Your task to perform on an android device: delete browsing data in the chrome app Image 0: 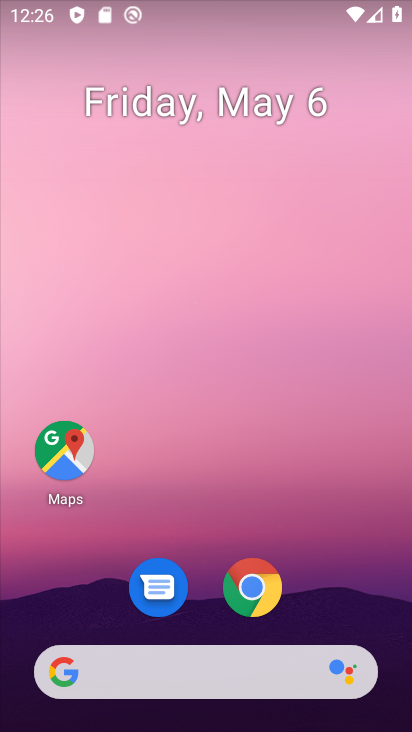
Step 0: click (252, 592)
Your task to perform on an android device: delete browsing data in the chrome app Image 1: 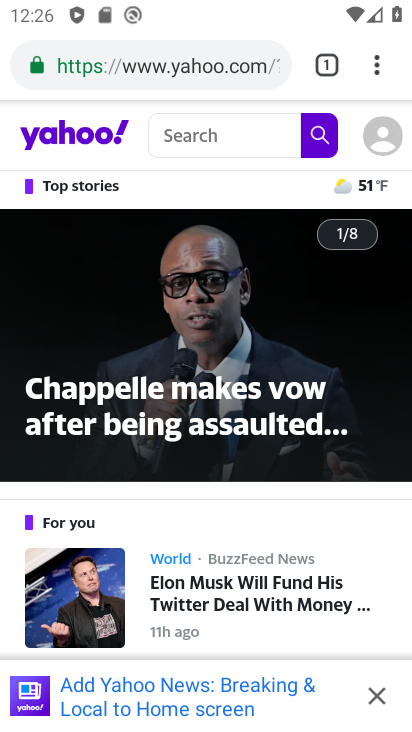
Step 1: click (377, 63)
Your task to perform on an android device: delete browsing data in the chrome app Image 2: 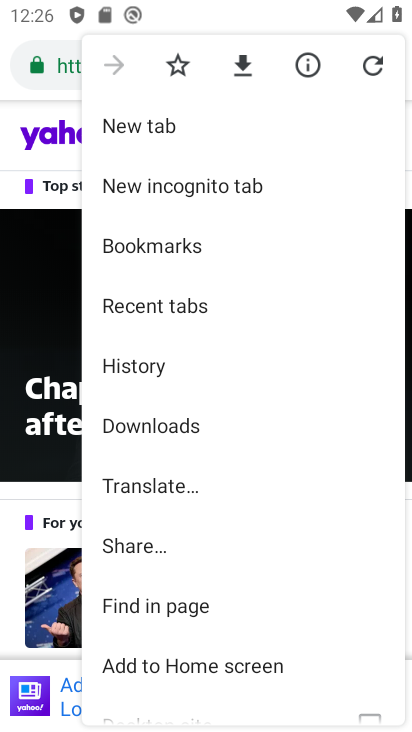
Step 2: drag from (251, 643) to (392, 190)
Your task to perform on an android device: delete browsing data in the chrome app Image 3: 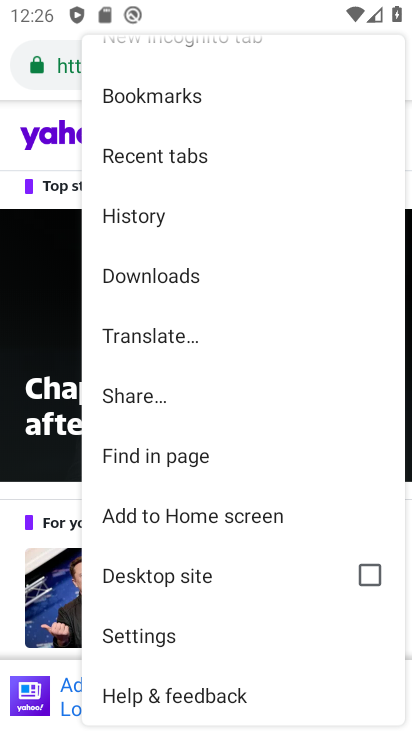
Step 3: drag from (267, 112) to (263, 626)
Your task to perform on an android device: delete browsing data in the chrome app Image 4: 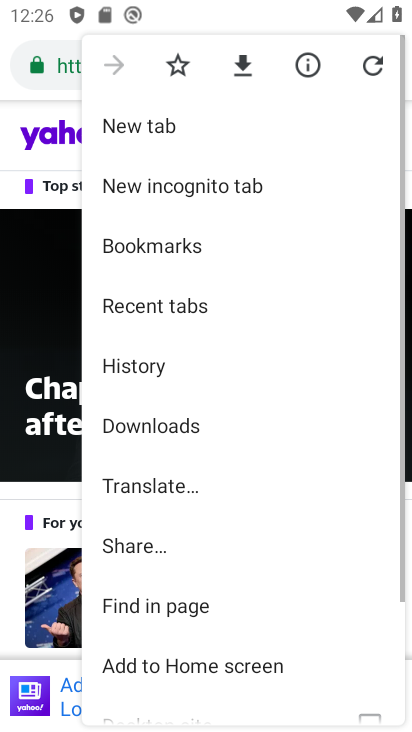
Step 4: click (201, 365)
Your task to perform on an android device: delete browsing data in the chrome app Image 5: 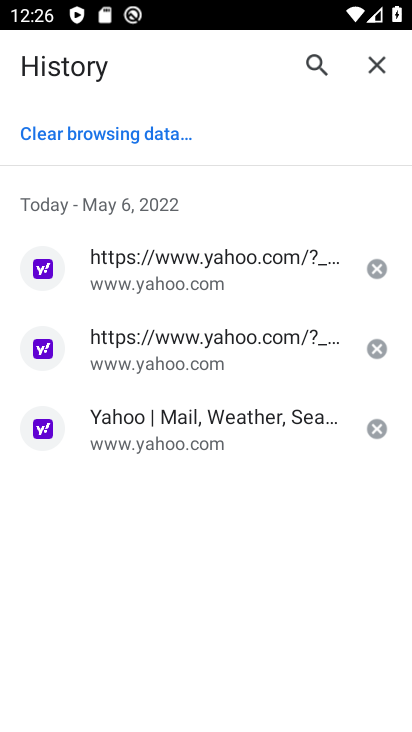
Step 5: click (156, 128)
Your task to perform on an android device: delete browsing data in the chrome app Image 6: 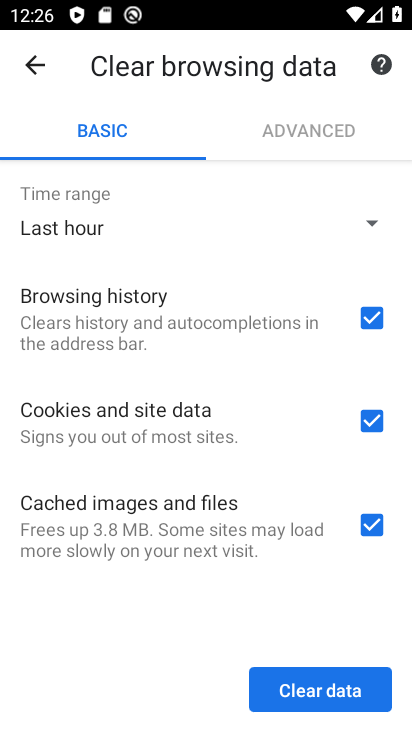
Step 6: click (330, 705)
Your task to perform on an android device: delete browsing data in the chrome app Image 7: 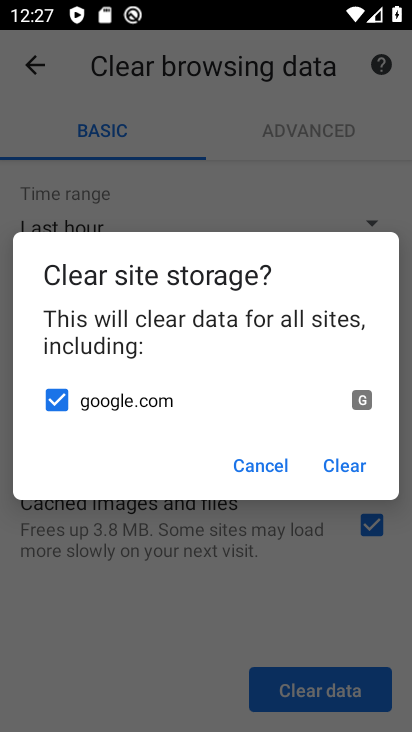
Step 7: click (344, 474)
Your task to perform on an android device: delete browsing data in the chrome app Image 8: 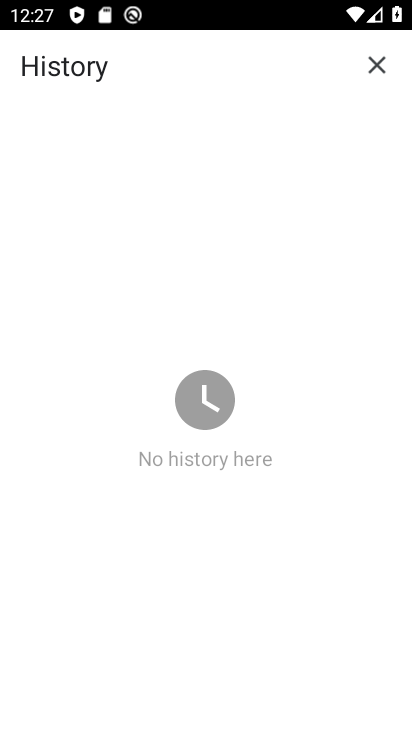
Step 8: task complete